Your task to perform on an android device: change the clock display to analog Image 0: 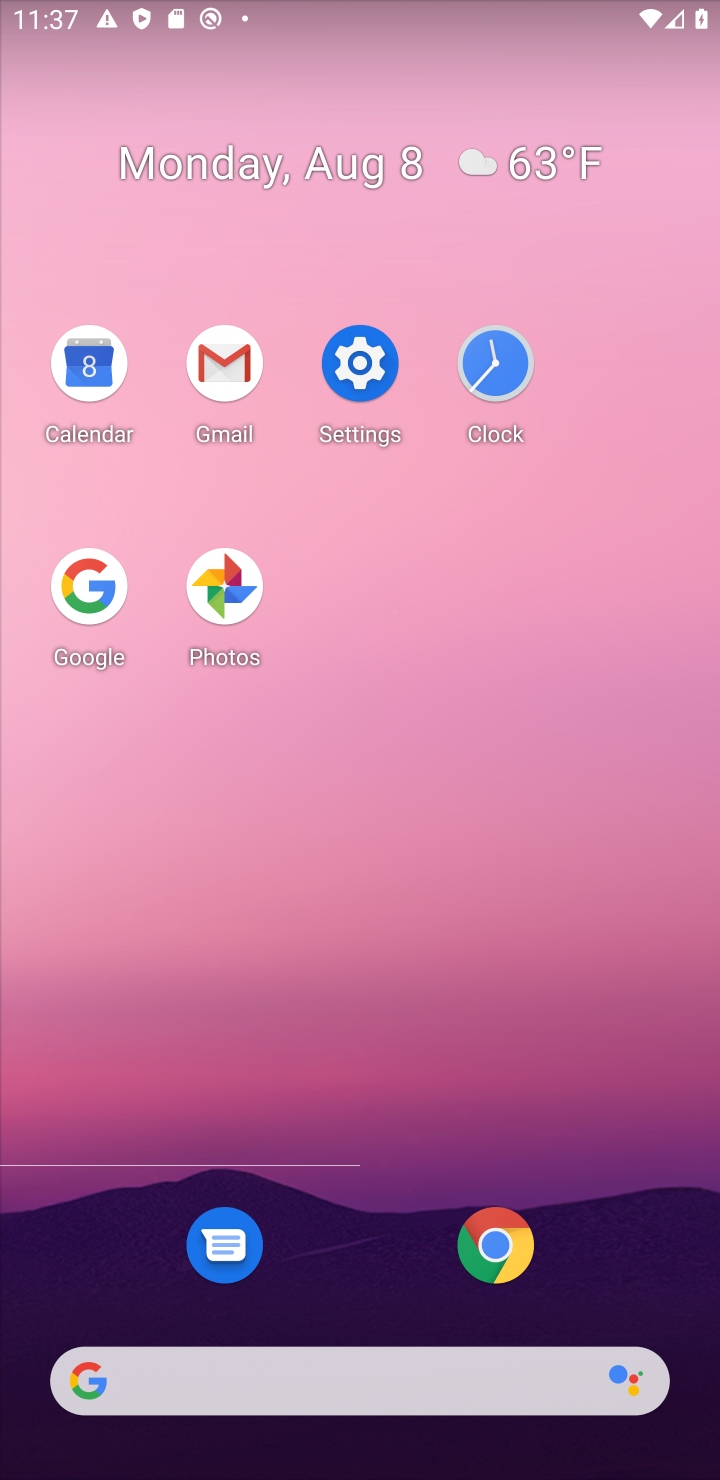
Step 0: click (480, 375)
Your task to perform on an android device: change the clock display to analog Image 1: 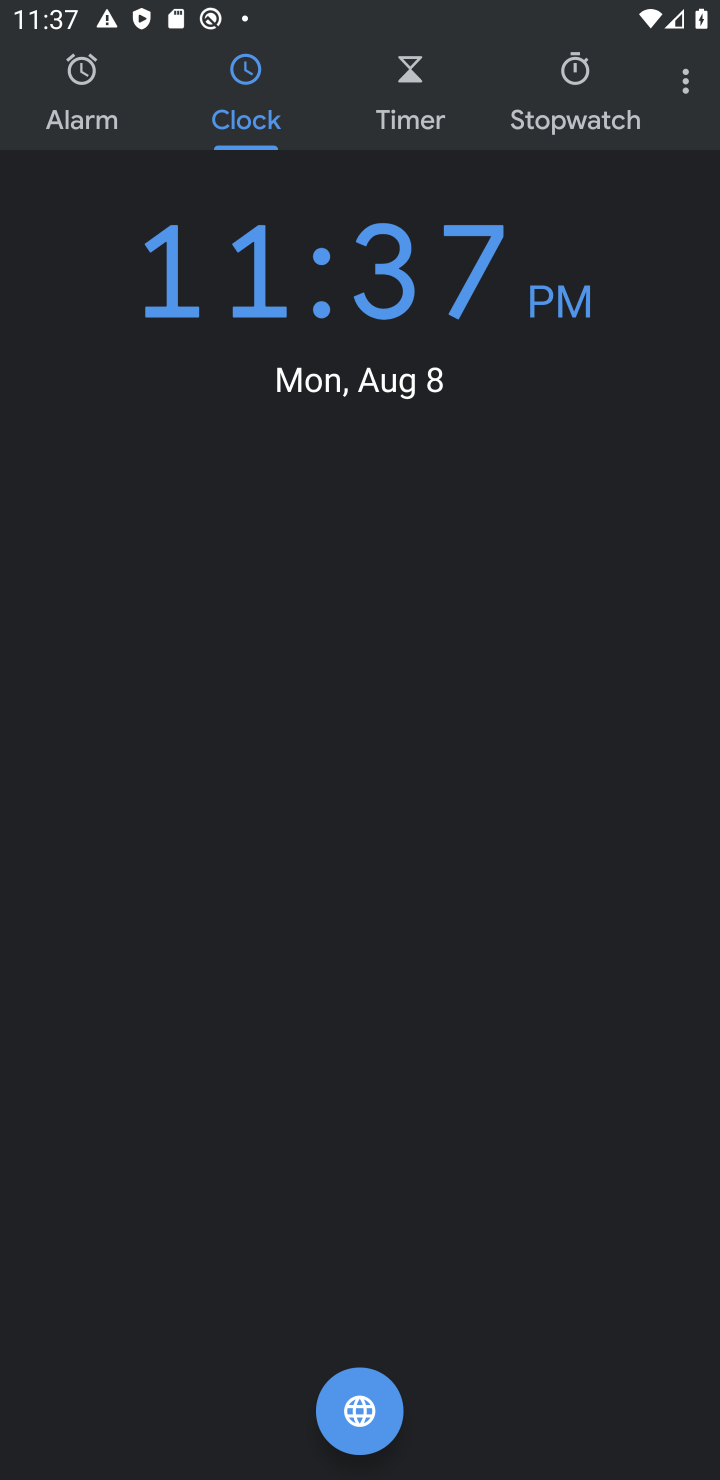
Step 1: click (689, 91)
Your task to perform on an android device: change the clock display to analog Image 2: 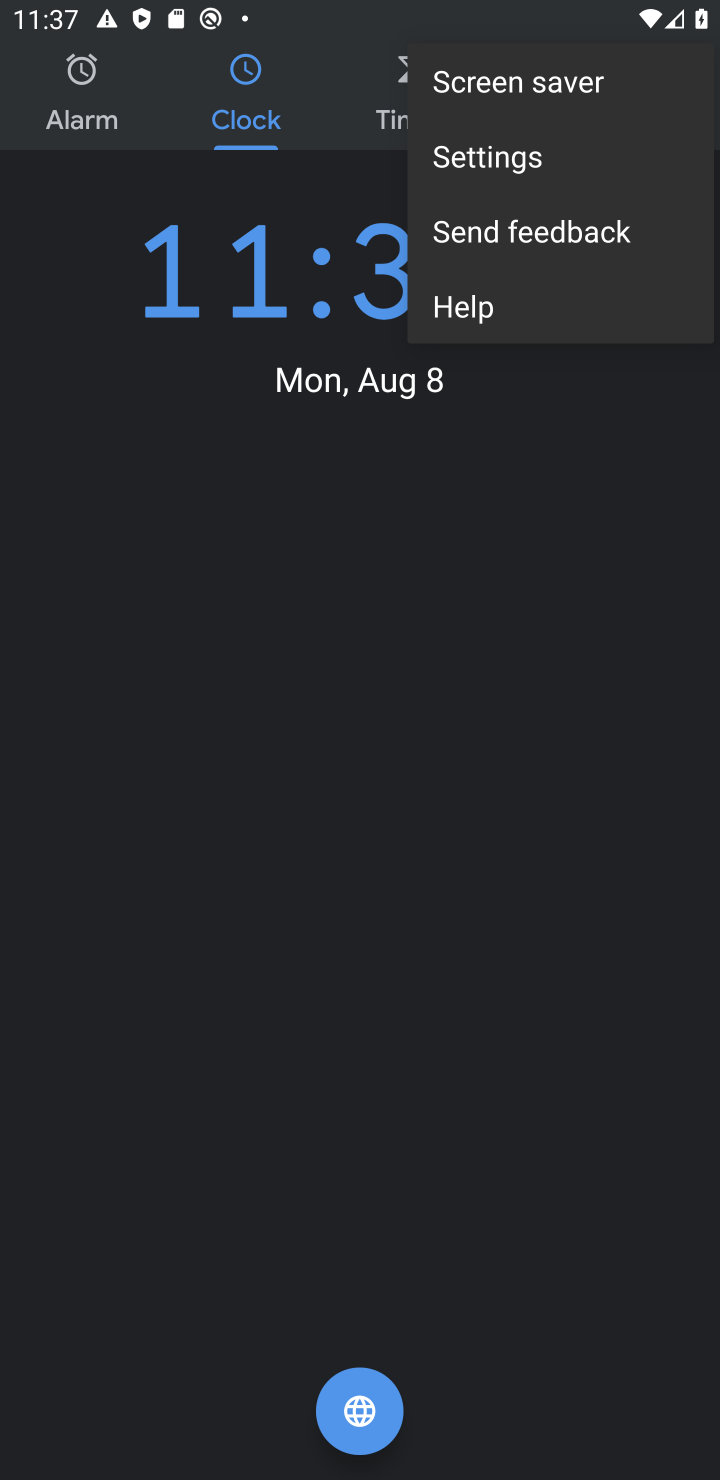
Step 2: click (567, 152)
Your task to perform on an android device: change the clock display to analog Image 3: 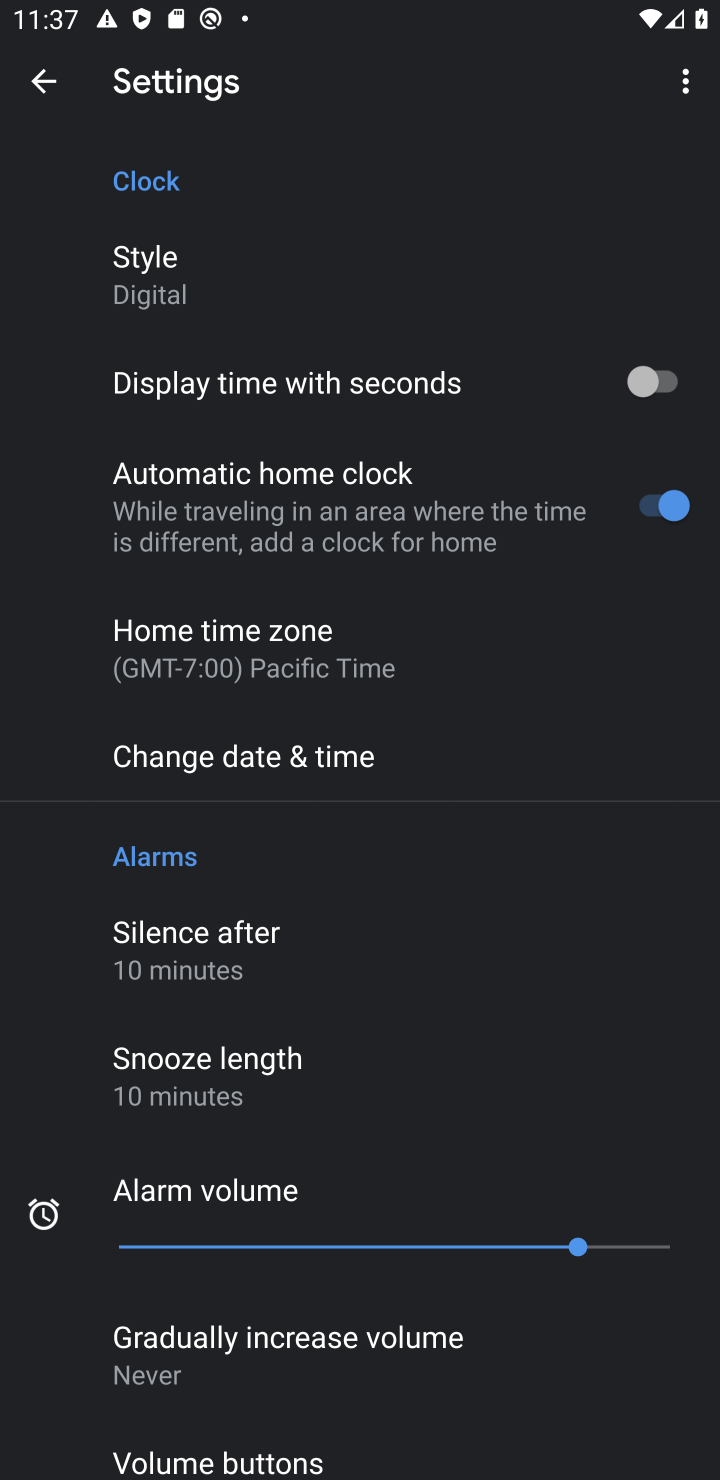
Step 3: click (228, 276)
Your task to perform on an android device: change the clock display to analog Image 4: 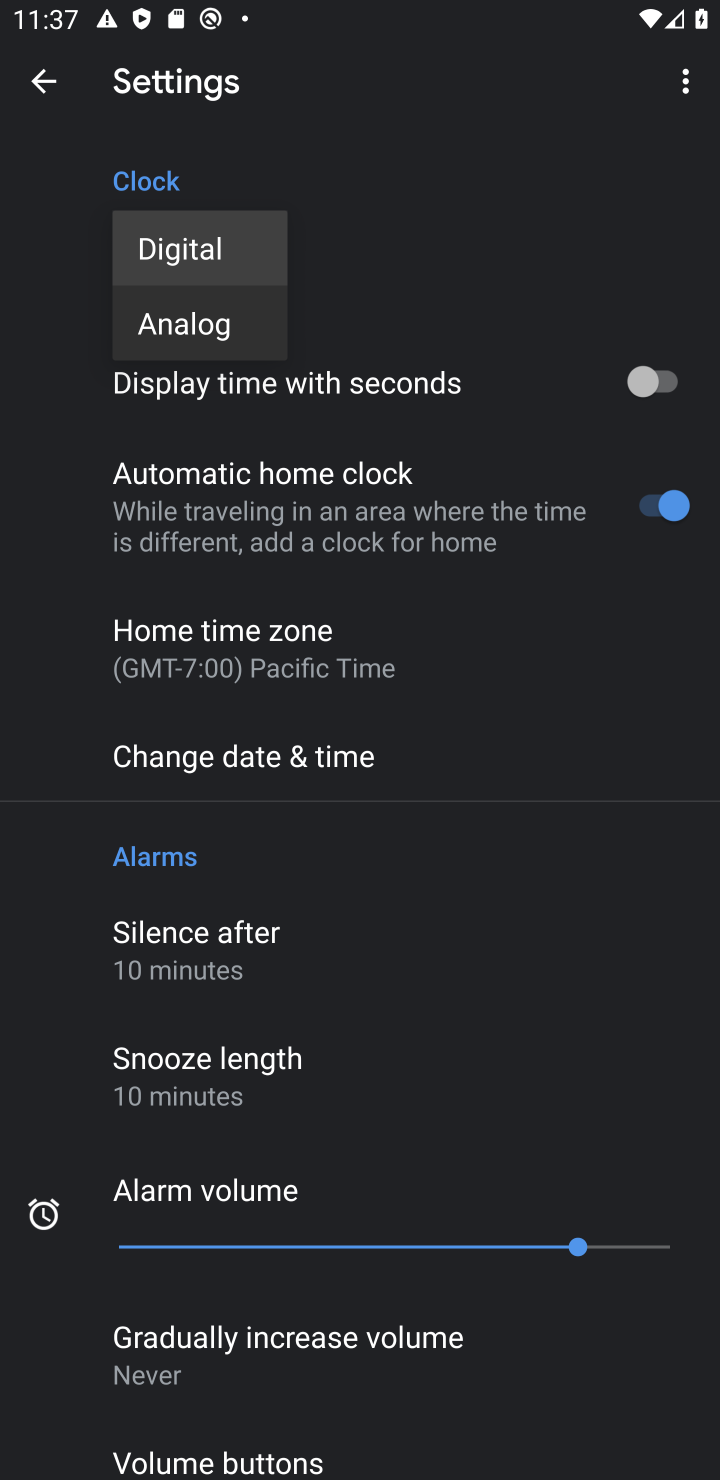
Step 4: click (215, 322)
Your task to perform on an android device: change the clock display to analog Image 5: 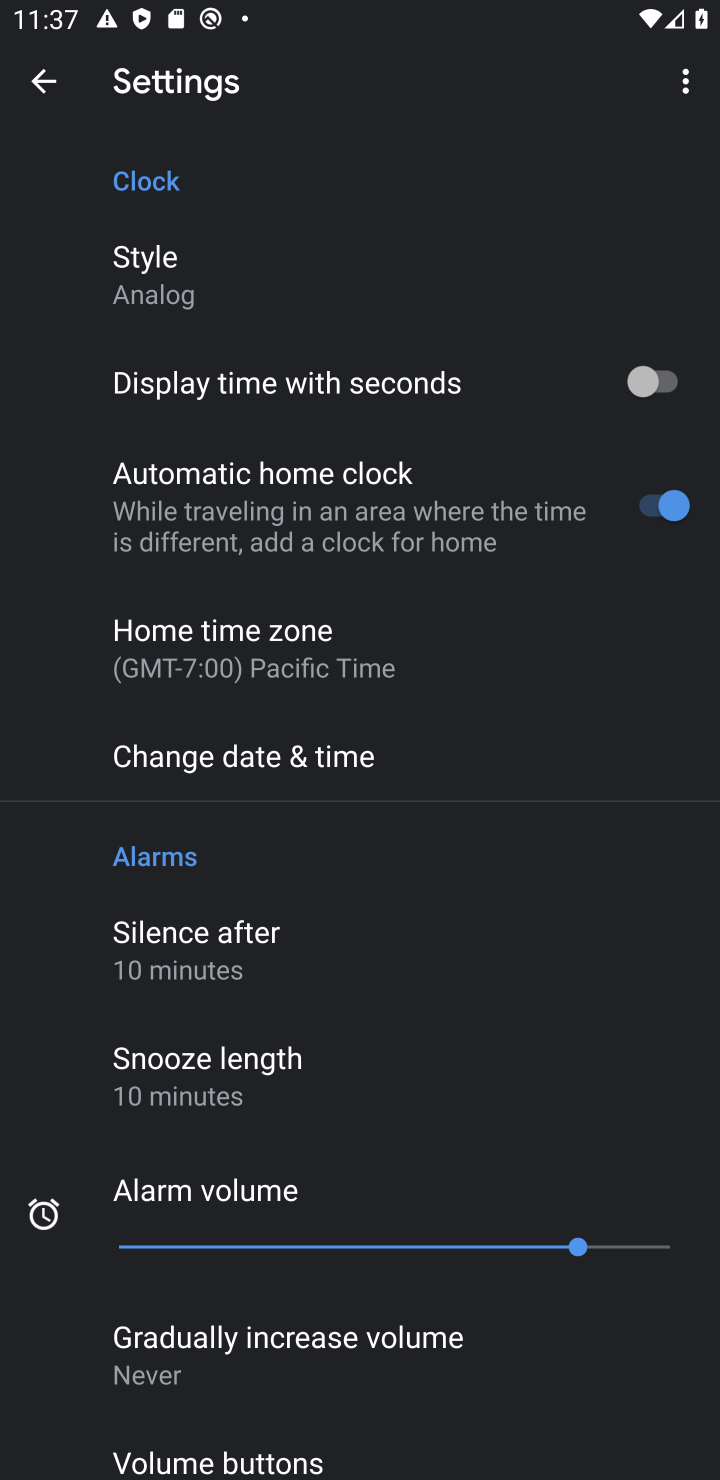
Step 5: task complete